Your task to perform on an android device: toggle notification dots Image 0: 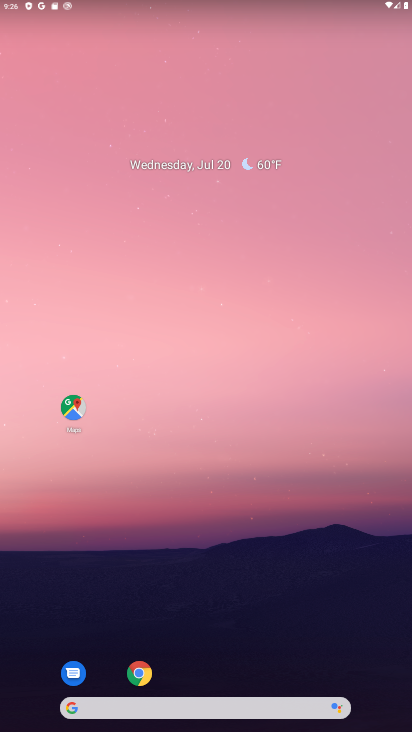
Step 0: click (188, 348)
Your task to perform on an android device: toggle notification dots Image 1: 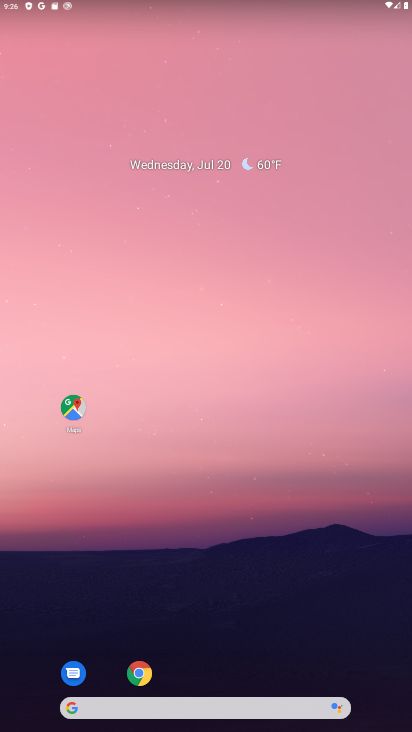
Step 1: drag from (191, 653) to (251, 51)
Your task to perform on an android device: toggle notification dots Image 2: 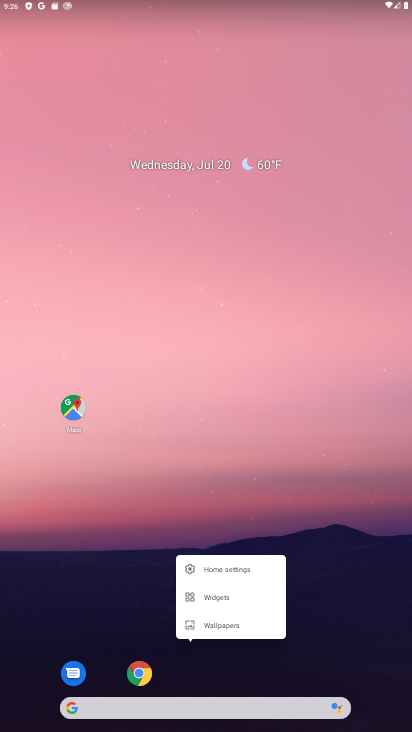
Step 2: click (216, 89)
Your task to perform on an android device: toggle notification dots Image 3: 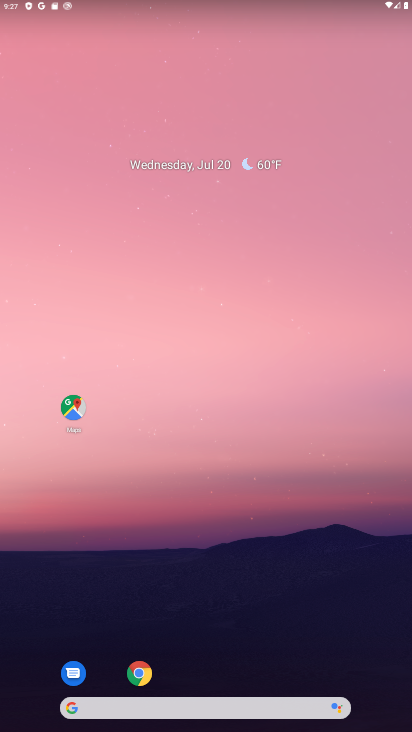
Step 3: click (179, 527)
Your task to perform on an android device: toggle notification dots Image 4: 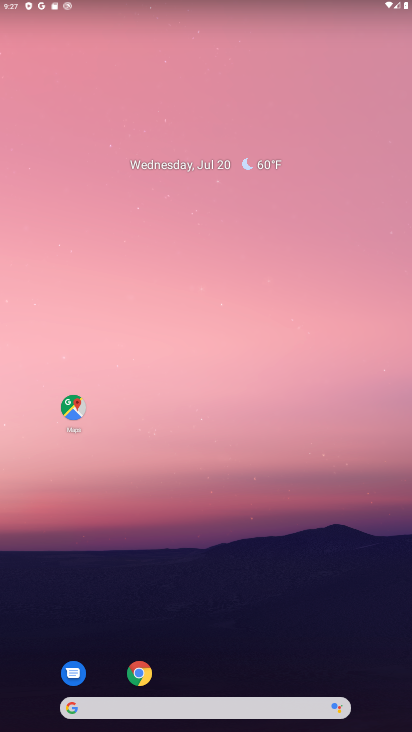
Step 4: drag from (187, 586) to (188, 4)
Your task to perform on an android device: toggle notification dots Image 5: 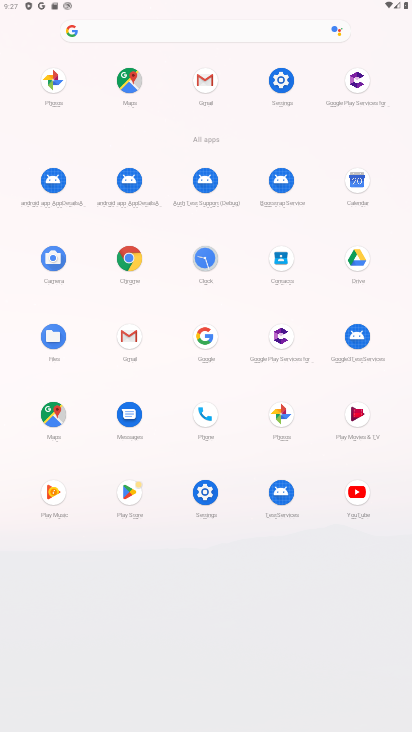
Step 5: click (274, 85)
Your task to perform on an android device: toggle notification dots Image 6: 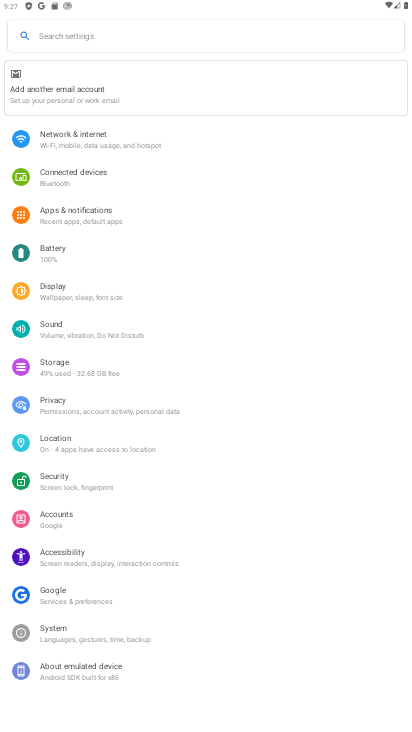
Step 6: click (117, 219)
Your task to perform on an android device: toggle notification dots Image 7: 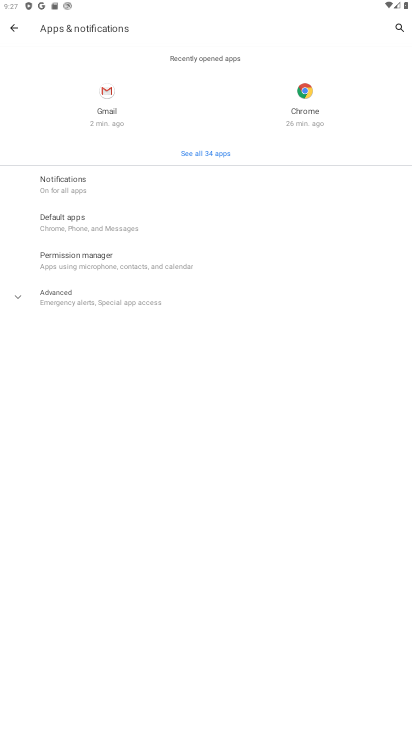
Step 7: click (78, 184)
Your task to perform on an android device: toggle notification dots Image 8: 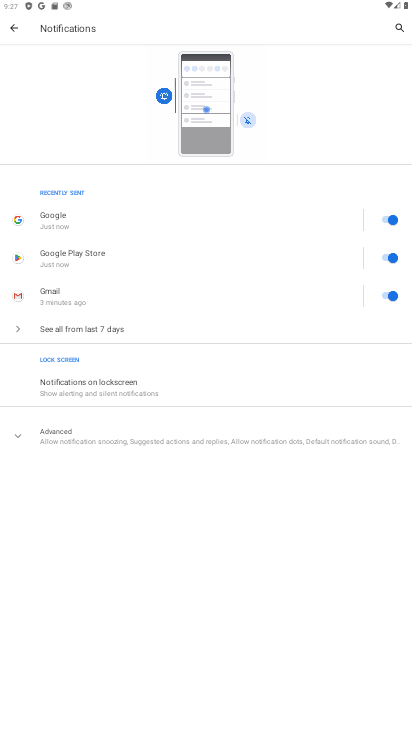
Step 8: click (85, 445)
Your task to perform on an android device: toggle notification dots Image 9: 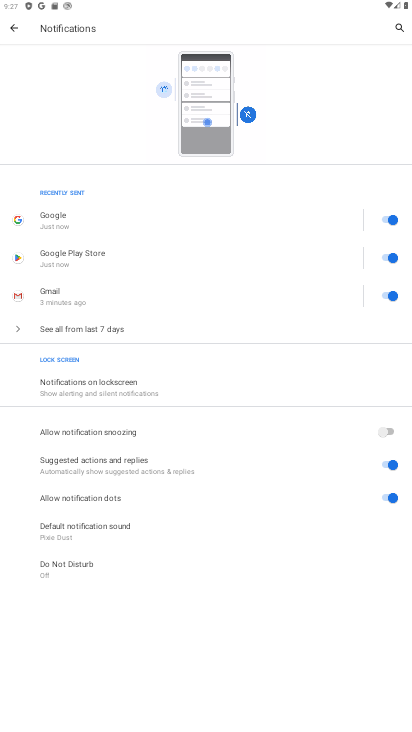
Step 9: click (386, 505)
Your task to perform on an android device: toggle notification dots Image 10: 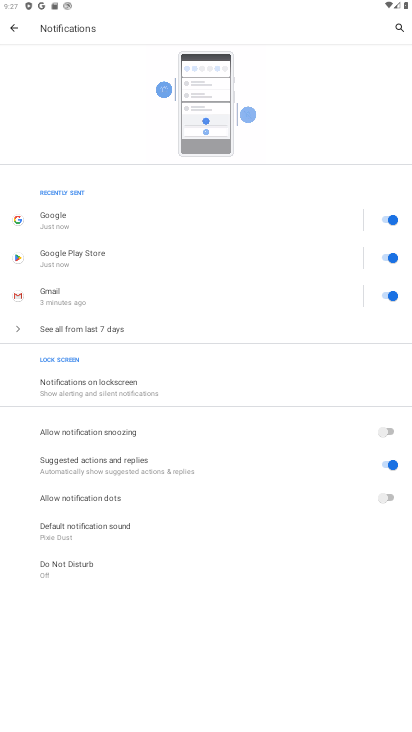
Step 10: task complete